Your task to perform on an android device: open app "Google Chrome" Image 0: 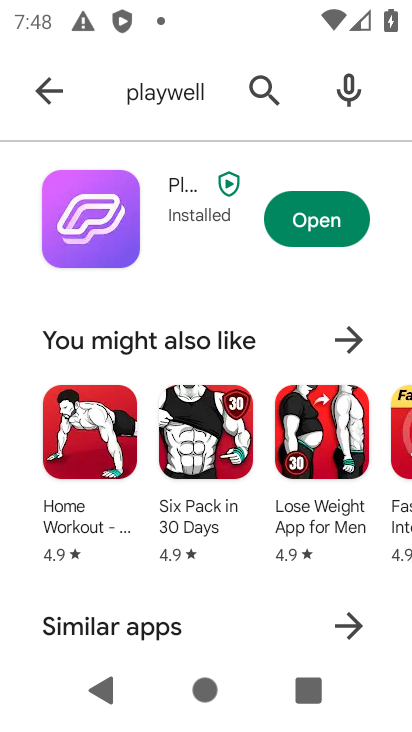
Step 0: press home button
Your task to perform on an android device: open app "Google Chrome" Image 1: 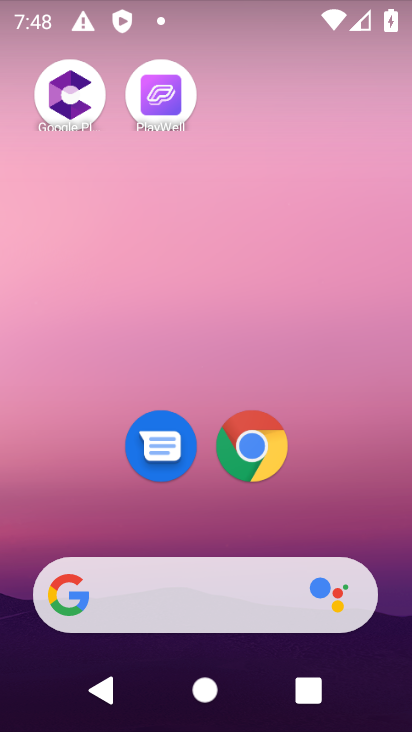
Step 1: drag from (216, 540) to (258, 14)
Your task to perform on an android device: open app "Google Chrome" Image 2: 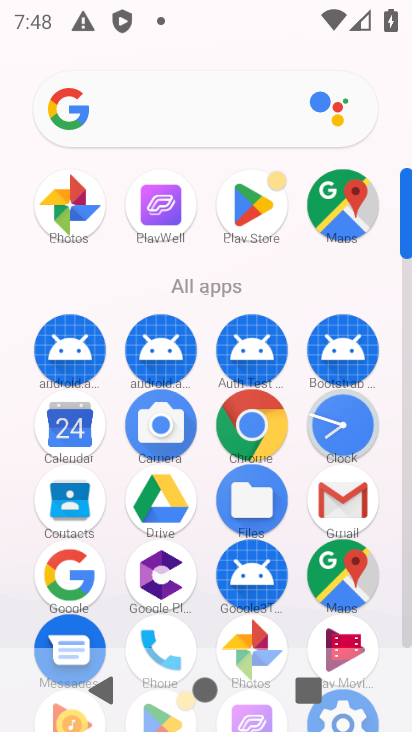
Step 2: click (239, 204)
Your task to perform on an android device: open app "Google Chrome" Image 3: 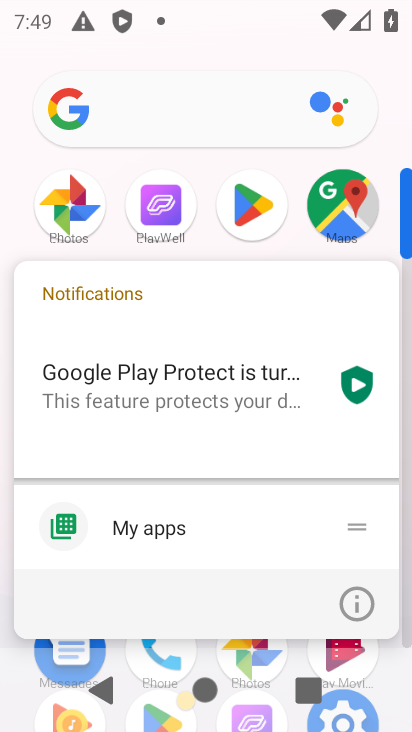
Step 3: click (259, 210)
Your task to perform on an android device: open app "Google Chrome" Image 4: 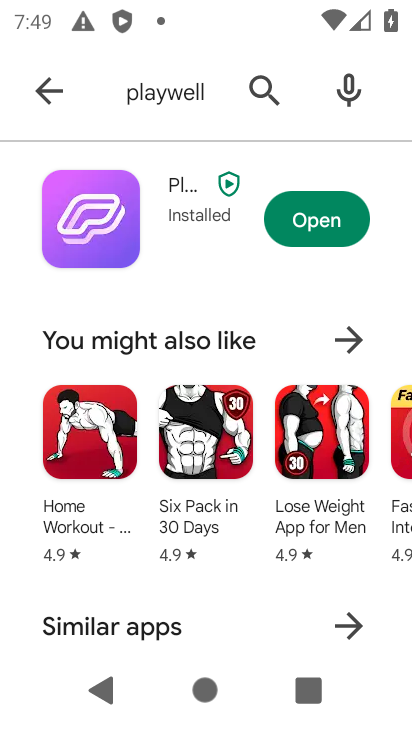
Step 4: click (255, 86)
Your task to perform on an android device: open app "Google Chrome" Image 5: 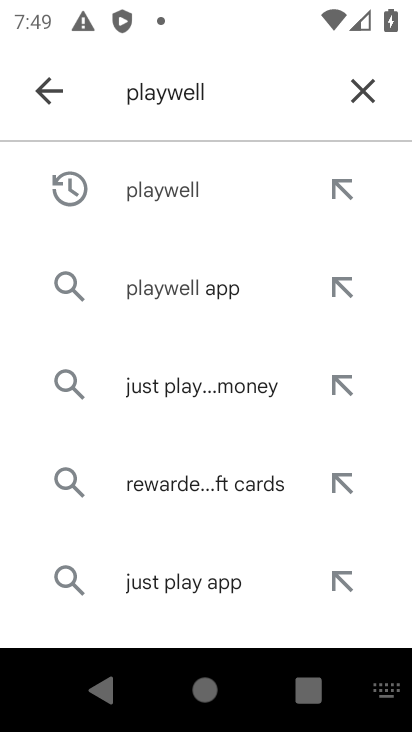
Step 5: click (363, 96)
Your task to perform on an android device: open app "Google Chrome" Image 6: 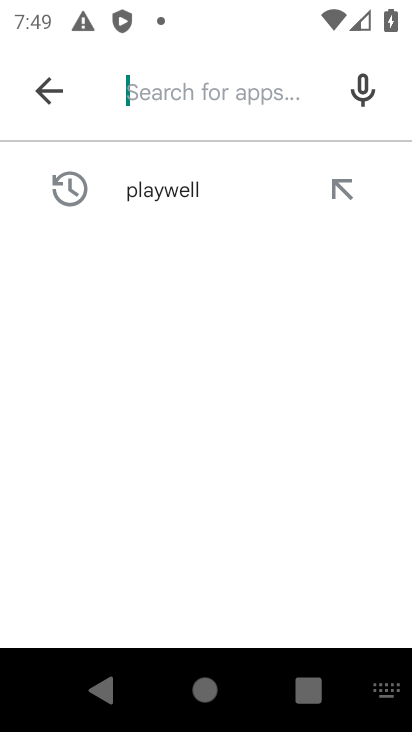
Step 6: type "Google Chrome"
Your task to perform on an android device: open app "Google Chrome" Image 7: 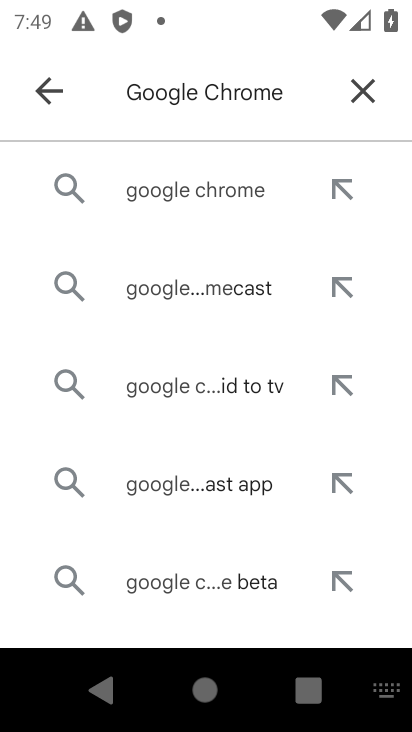
Step 7: click (211, 196)
Your task to perform on an android device: open app "Google Chrome" Image 8: 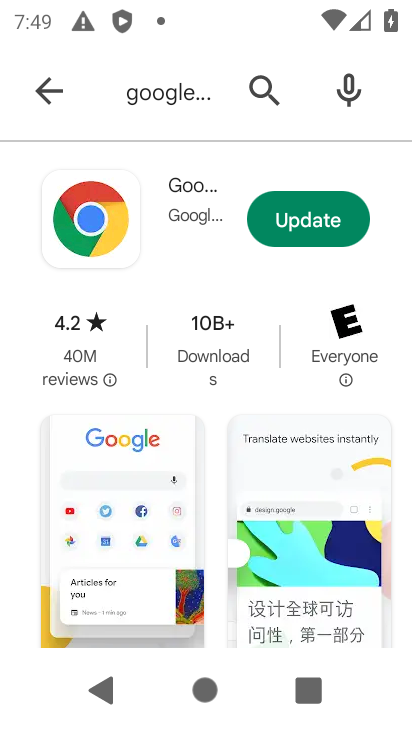
Step 8: click (298, 219)
Your task to perform on an android device: open app "Google Chrome" Image 9: 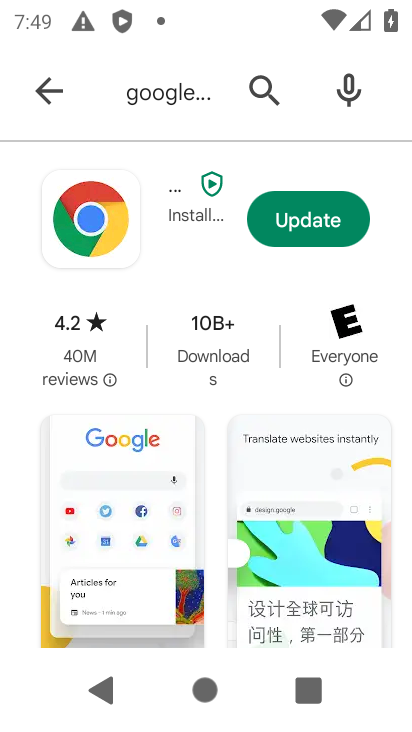
Step 9: click (304, 216)
Your task to perform on an android device: open app "Google Chrome" Image 10: 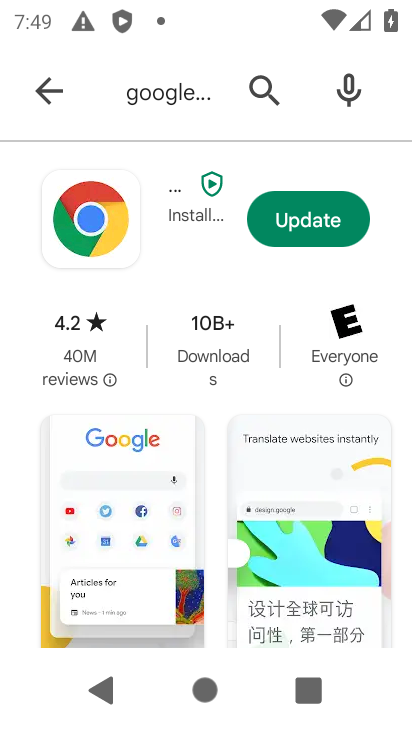
Step 10: task complete